Your task to perform on an android device: move an email to a new category in the gmail app Image 0: 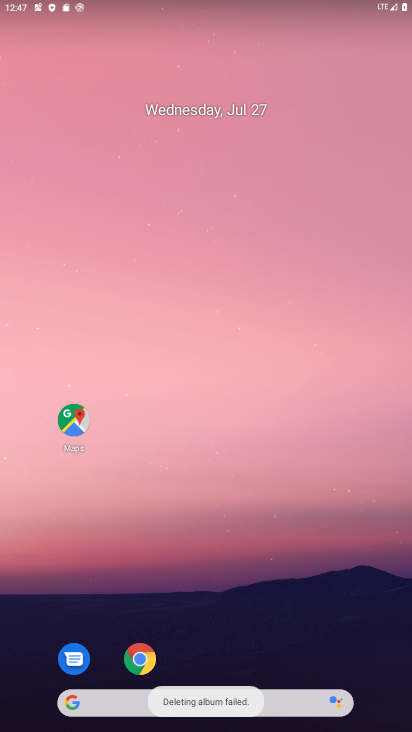
Step 0: drag from (213, 542) to (217, 93)
Your task to perform on an android device: move an email to a new category in the gmail app Image 1: 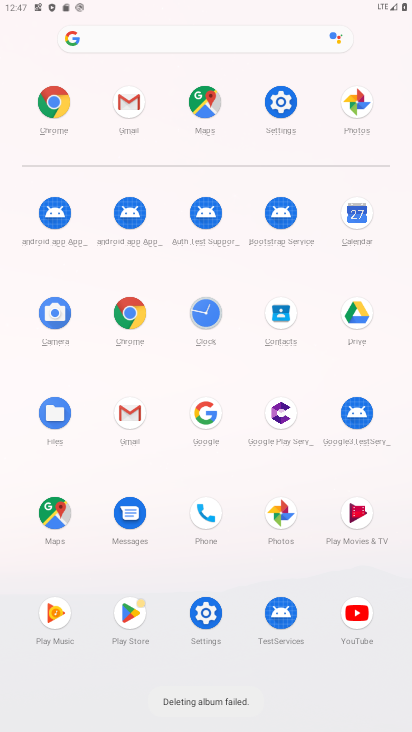
Step 1: click (138, 418)
Your task to perform on an android device: move an email to a new category in the gmail app Image 2: 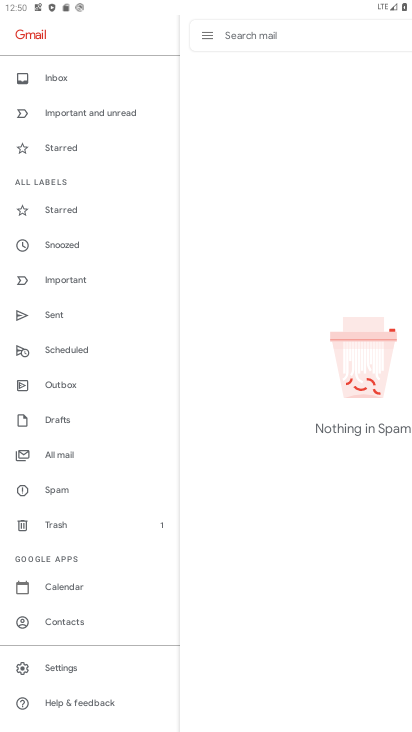
Step 2: click (49, 458)
Your task to perform on an android device: move an email to a new category in the gmail app Image 3: 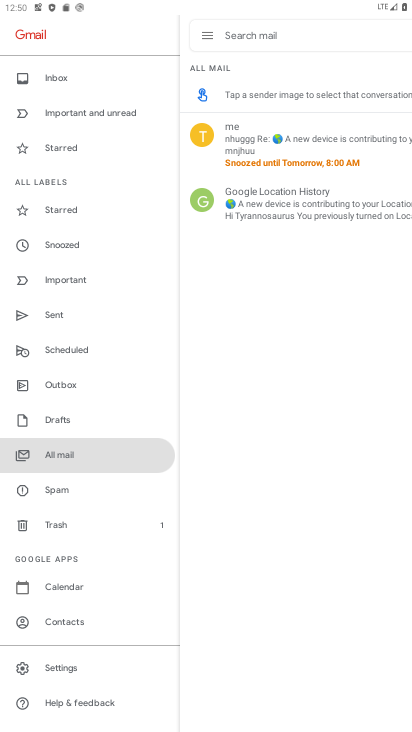
Step 3: click (312, 199)
Your task to perform on an android device: move an email to a new category in the gmail app Image 4: 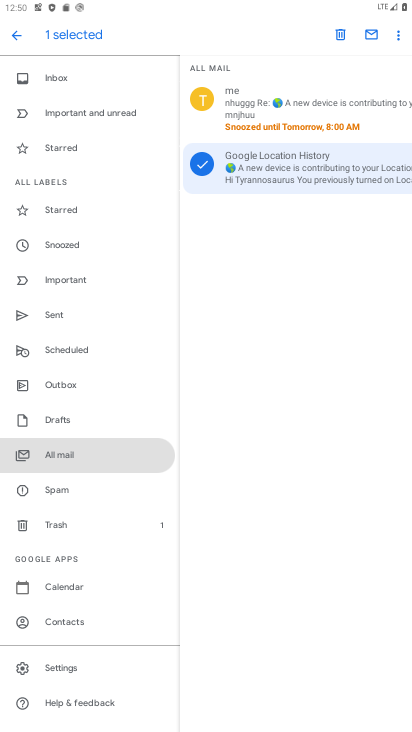
Step 4: click (396, 35)
Your task to perform on an android device: move an email to a new category in the gmail app Image 5: 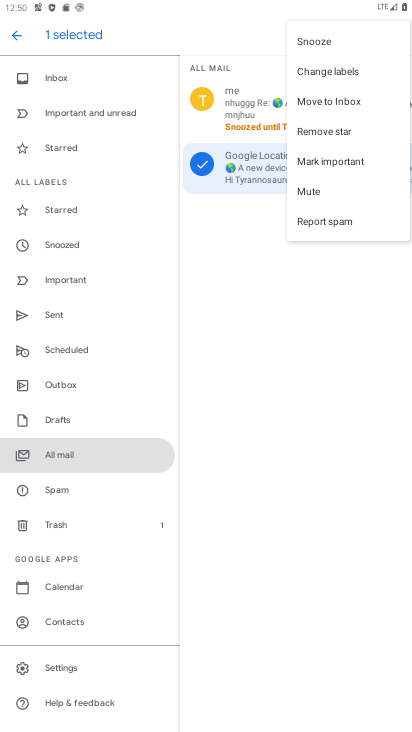
Step 5: click (352, 104)
Your task to perform on an android device: move an email to a new category in the gmail app Image 6: 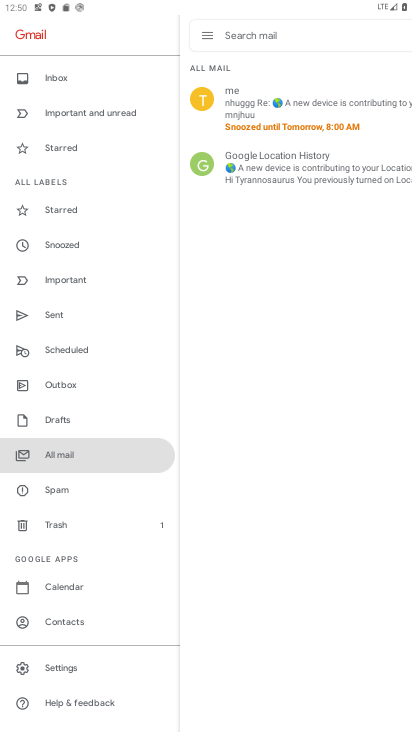
Step 6: task complete